Your task to perform on an android device: Open Android settings Image 0: 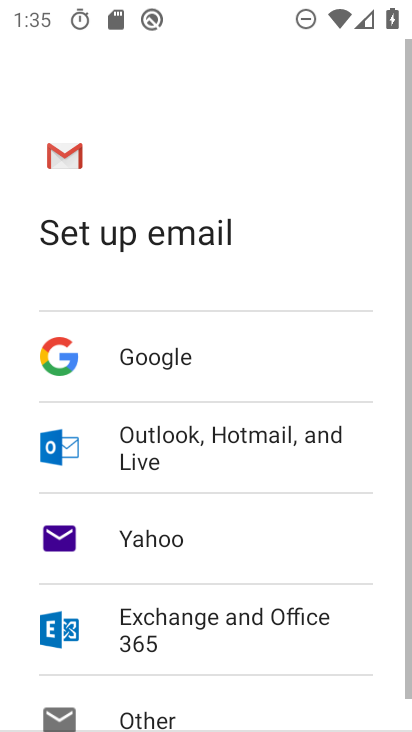
Step 0: press home button
Your task to perform on an android device: Open Android settings Image 1: 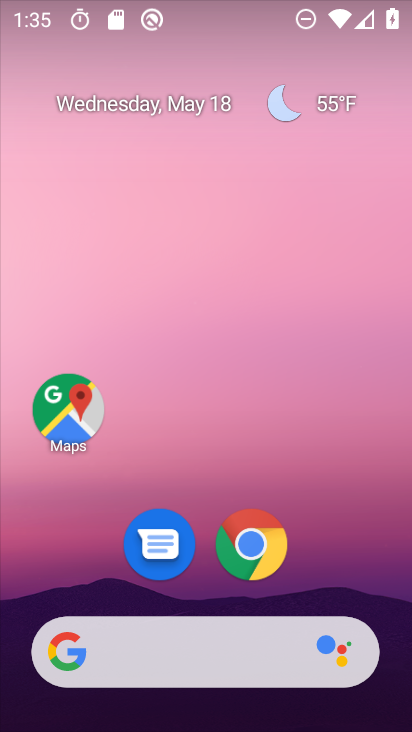
Step 1: drag from (327, 561) to (247, 147)
Your task to perform on an android device: Open Android settings Image 2: 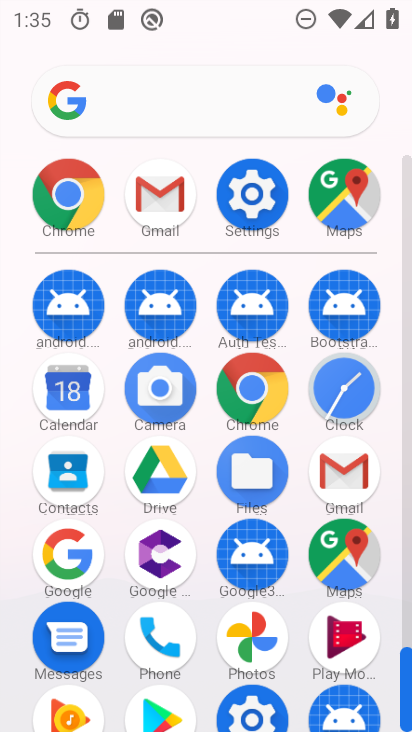
Step 2: click (252, 184)
Your task to perform on an android device: Open Android settings Image 3: 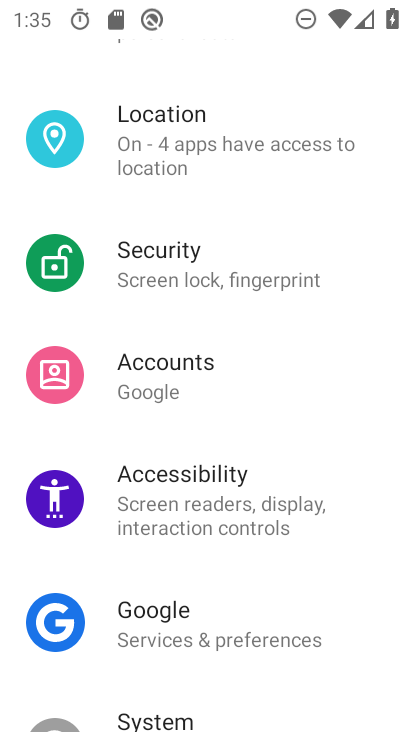
Step 3: drag from (278, 585) to (308, 116)
Your task to perform on an android device: Open Android settings Image 4: 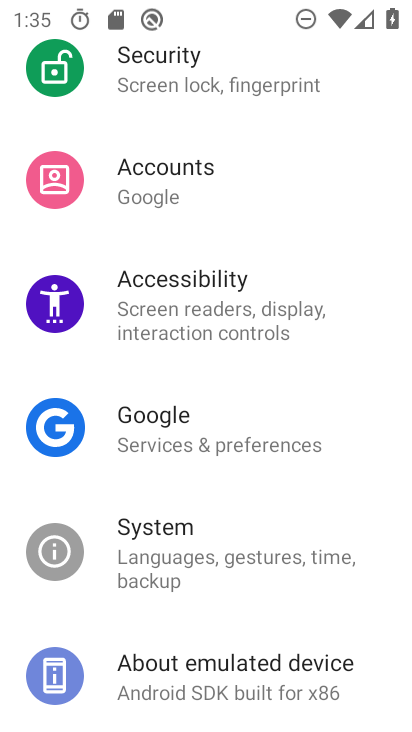
Step 4: click (283, 688)
Your task to perform on an android device: Open Android settings Image 5: 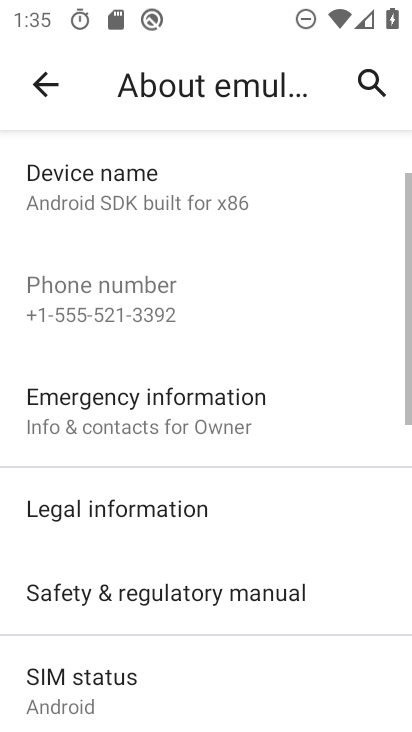
Step 5: drag from (283, 688) to (308, 305)
Your task to perform on an android device: Open Android settings Image 6: 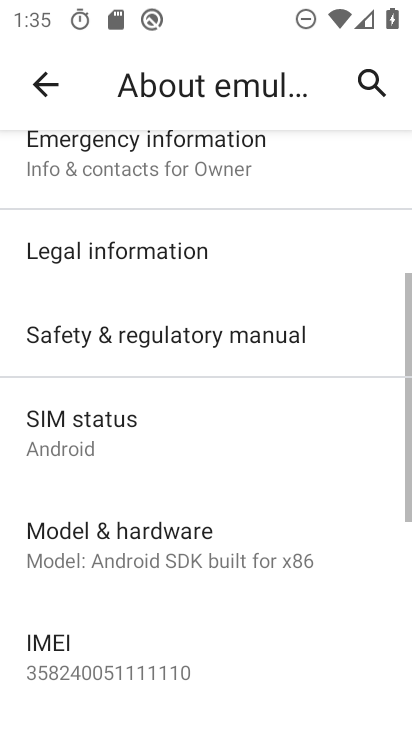
Step 6: drag from (234, 646) to (285, 188)
Your task to perform on an android device: Open Android settings Image 7: 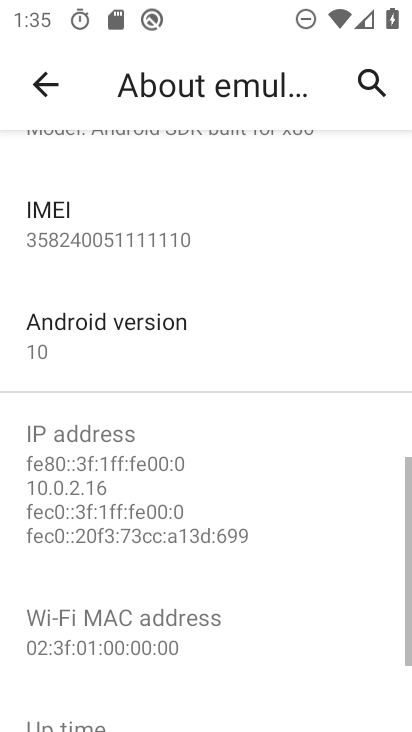
Step 7: click (180, 328)
Your task to perform on an android device: Open Android settings Image 8: 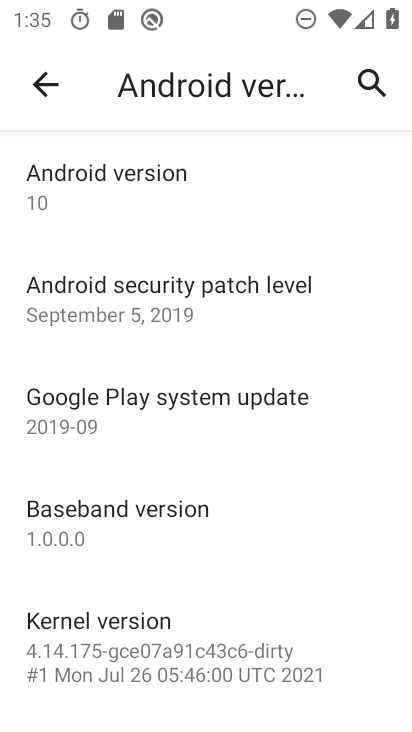
Step 8: task complete